Your task to perform on an android device: find snoozed emails in the gmail app Image 0: 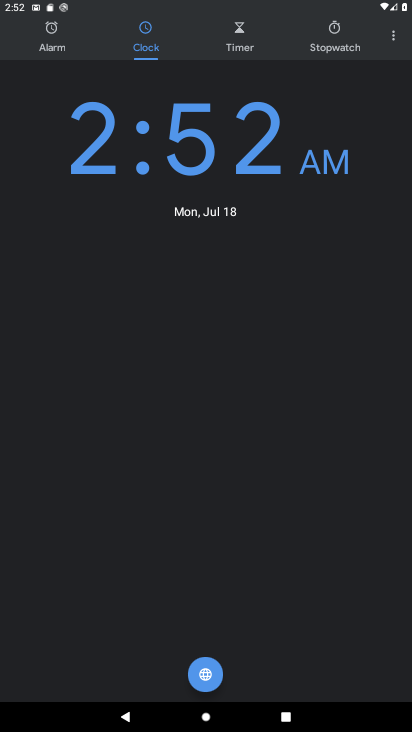
Step 0: press home button
Your task to perform on an android device: find snoozed emails in the gmail app Image 1: 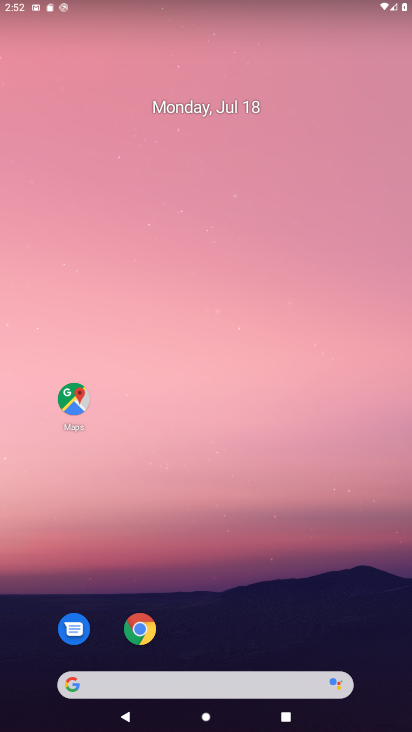
Step 1: drag from (341, 570) to (336, 180)
Your task to perform on an android device: find snoozed emails in the gmail app Image 2: 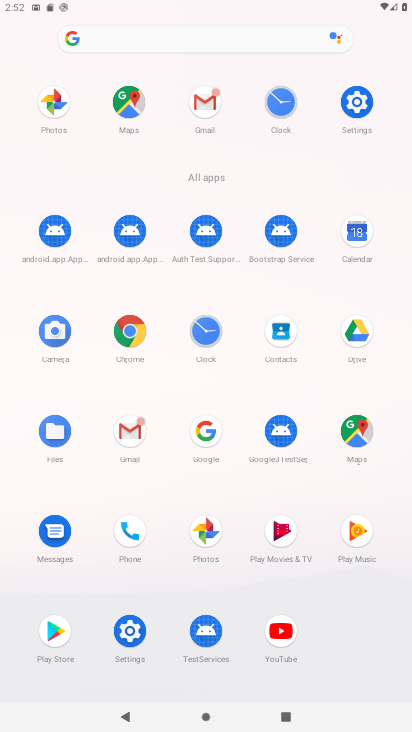
Step 2: click (130, 429)
Your task to perform on an android device: find snoozed emails in the gmail app Image 3: 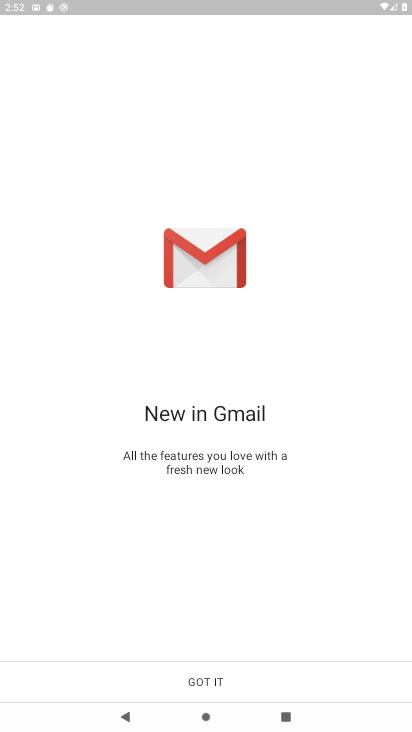
Step 3: click (194, 681)
Your task to perform on an android device: find snoozed emails in the gmail app Image 4: 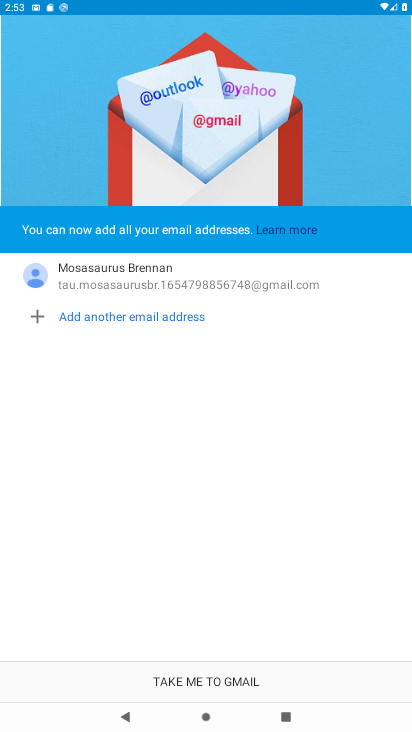
Step 4: click (194, 681)
Your task to perform on an android device: find snoozed emails in the gmail app Image 5: 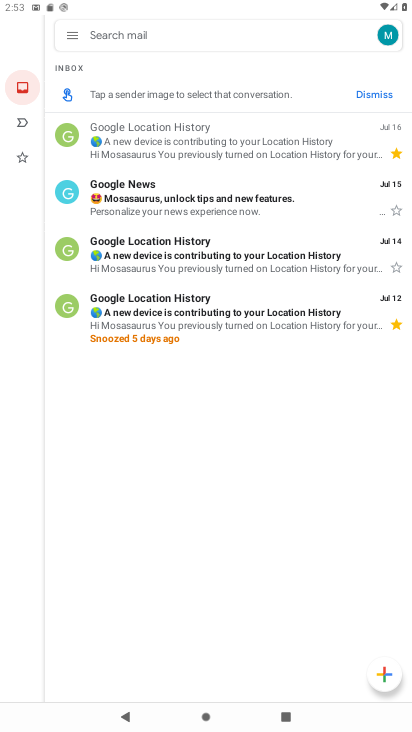
Step 5: click (70, 34)
Your task to perform on an android device: find snoozed emails in the gmail app Image 6: 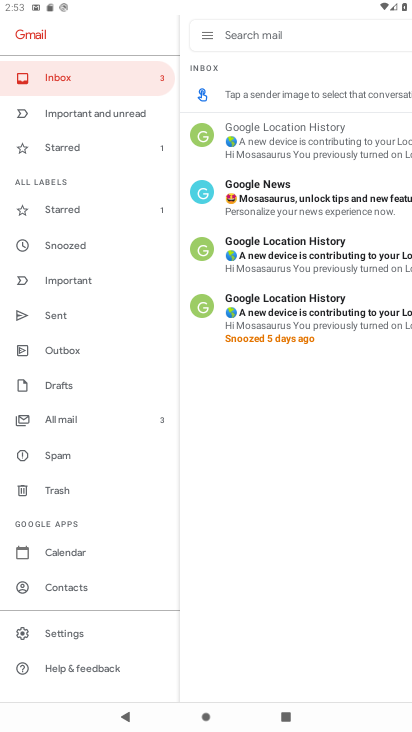
Step 6: click (85, 253)
Your task to perform on an android device: find snoozed emails in the gmail app Image 7: 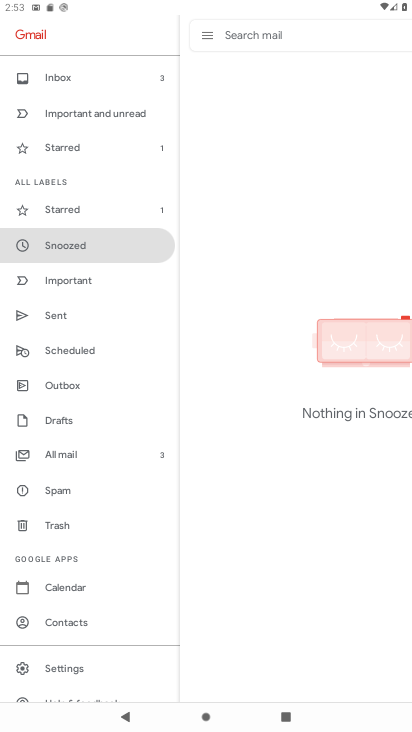
Step 7: task complete